Your task to perform on an android device: Open Google Chrome and click the shortcut for Amazon.com Image 0: 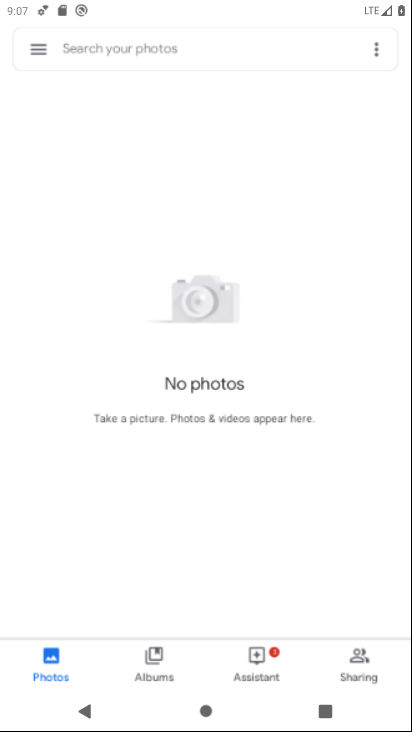
Step 0: drag from (218, 619) to (261, 344)
Your task to perform on an android device: Open Google Chrome and click the shortcut for Amazon.com Image 1: 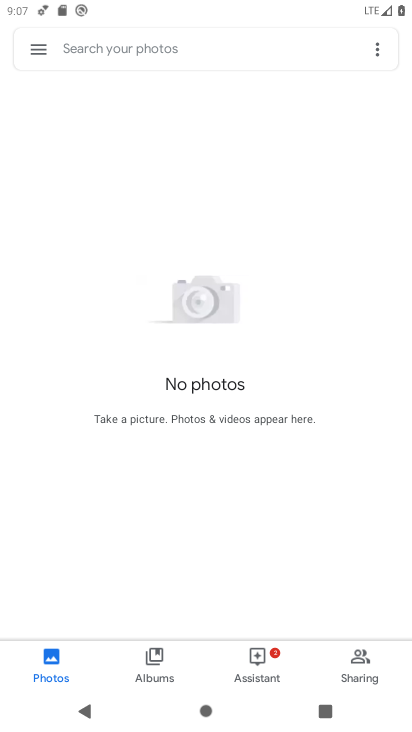
Step 1: press home button
Your task to perform on an android device: Open Google Chrome and click the shortcut for Amazon.com Image 2: 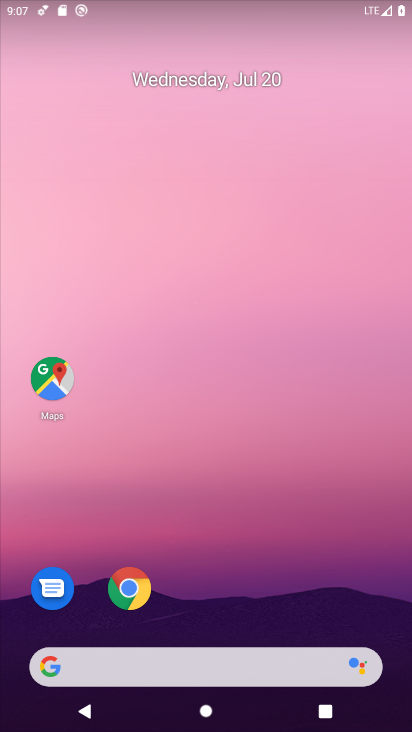
Step 2: click (124, 579)
Your task to perform on an android device: Open Google Chrome and click the shortcut for Amazon.com Image 3: 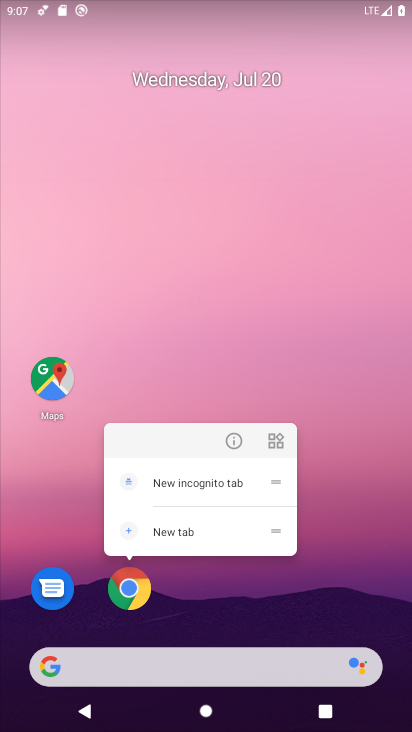
Step 3: click (127, 585)
Your task to perform on an android device: Open Google Chrome and click the shortcut for Amazon.com Image 4: 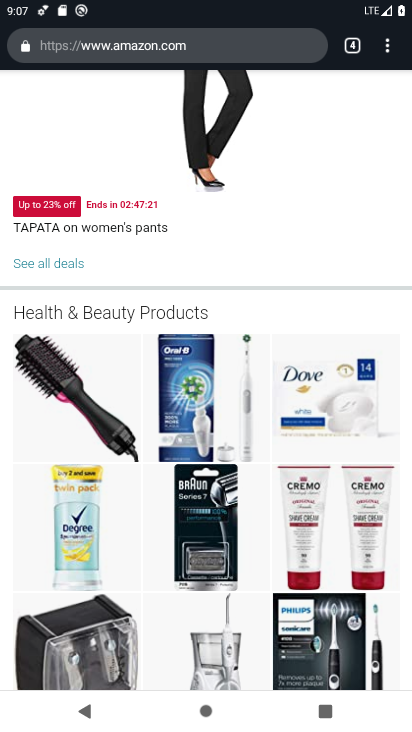
Step 4: task complete